Your task to perform on an android device: open the mobile data screen to see how much data has been used Image 0: 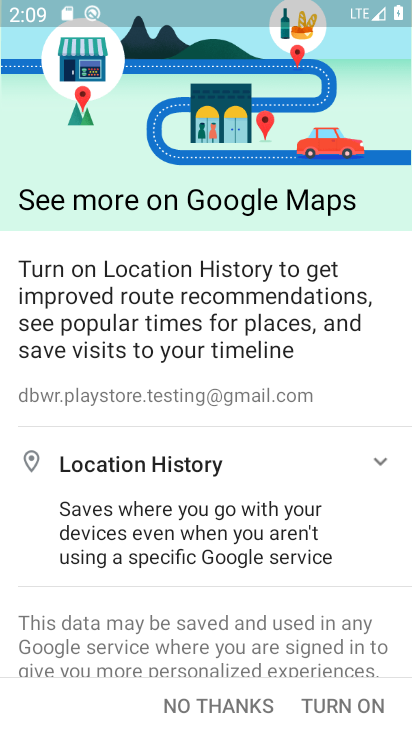
Step 0: press home button
Your task to perform on an android device: open the mobile data screen to see how much data has been used Image 1: 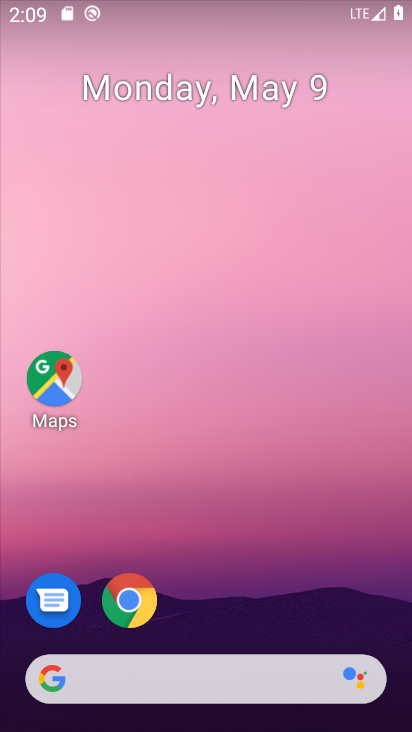
Step 1: drag from (245, 614) to (158, 65)
Your task to perform on an android device: open the mobile data screen to see how much data has been used Image 2: 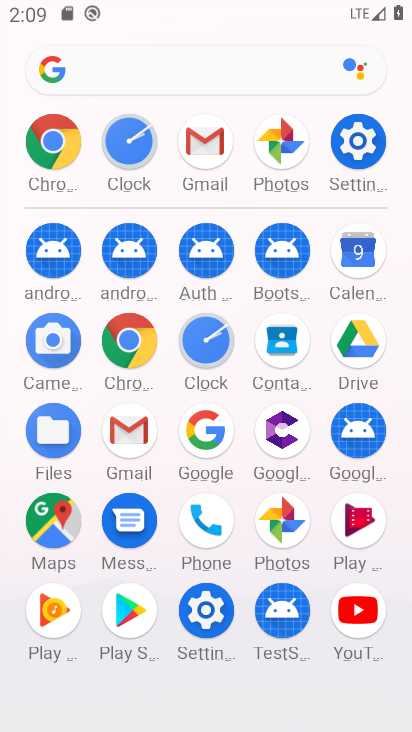
Step 2: click (364, 158)
Your task to perform on an android device: open the mobile data screen to see how much data has been used Image 3: 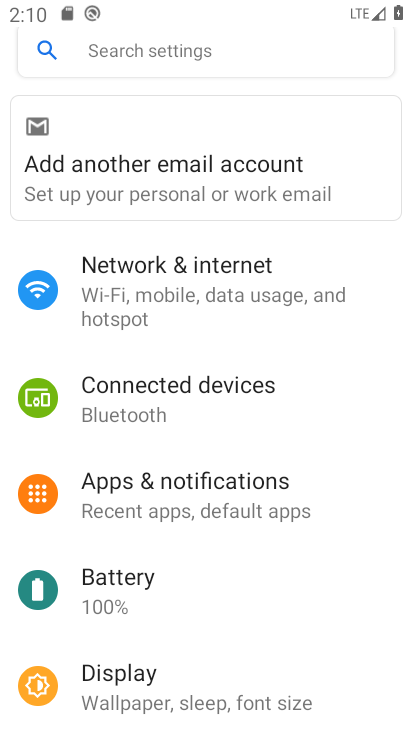
Step 3: click (119, 267)
Your task to perform on an android device: open the mobile data screen to see how much data has been used Image 4: 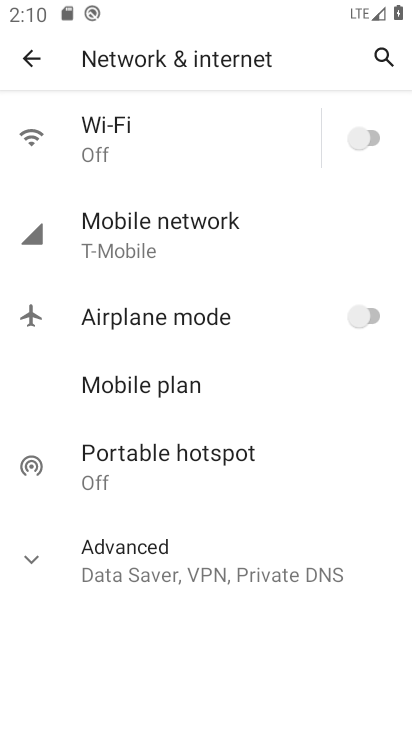
Step 4: click (128, 230)
Your task to perform on an android device: open the mobile data screen to see how much data has been used Image 5: 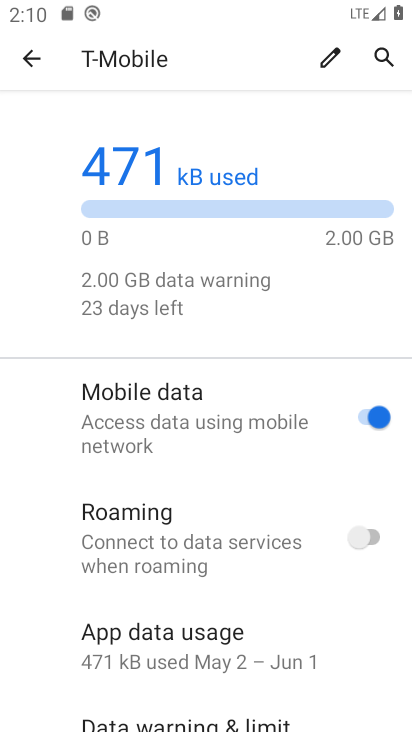
Step 5: drag from (98, 577) to (57, 171)
Your task to perform on an android device: open the mobile data screen to see how much data has been used Image 6: 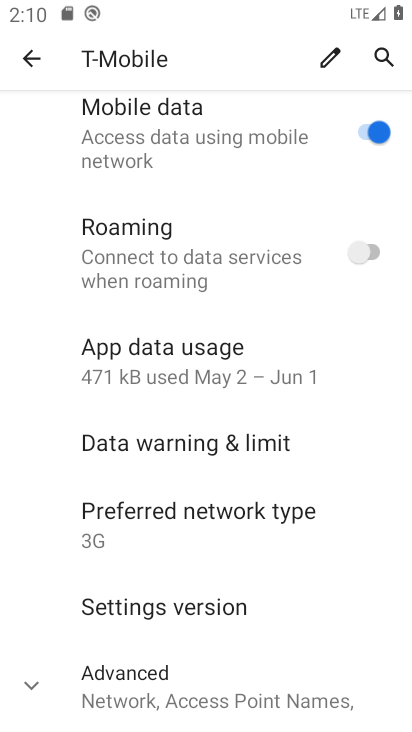
Step 6: click (154, 372)
Your task to perform on an android device: open the mobile data screen to see how much data has been used Image 7: 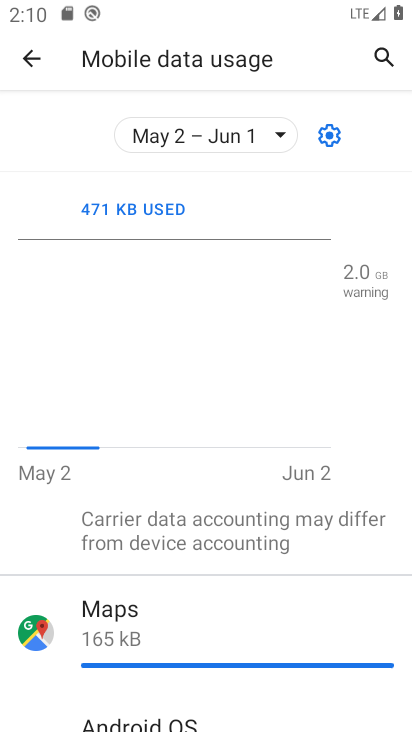
Step 7: task complete